Your task to perform on an android device: What's on the menu at Pizza Hut? Image 0: 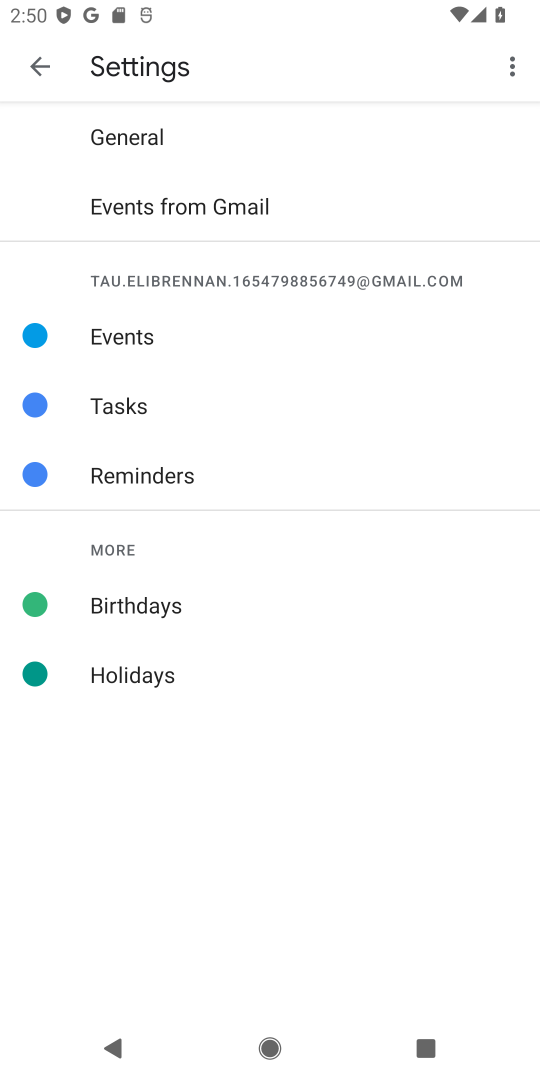
Step 0: press home button
Your task to perform on an android device: What's on the menu at Pizza Hut? Image 1: 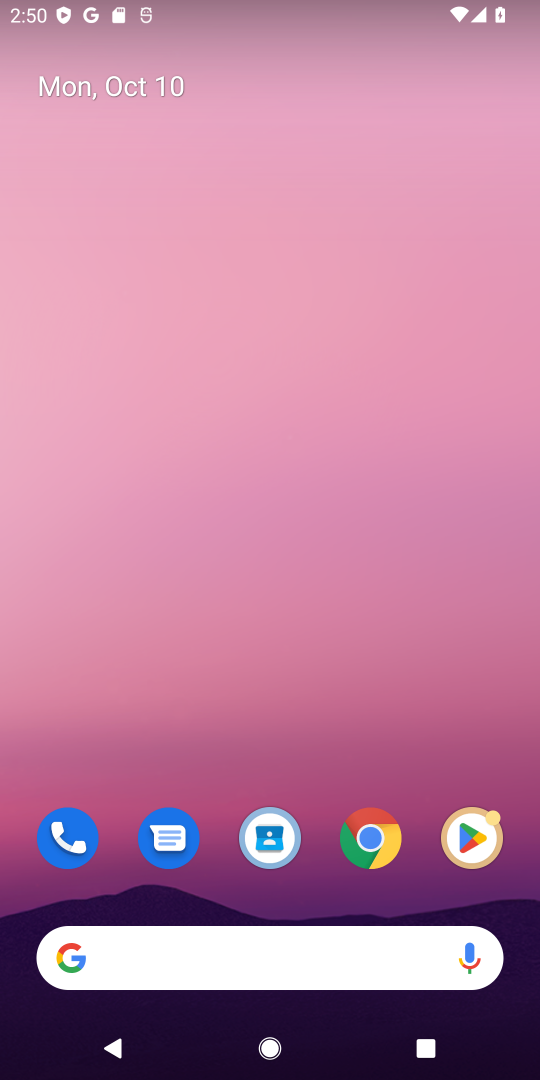
Step 1: click (279, 962)
Your task to perform on an android device: What's on the menu at Pizza Hut? Image 2: 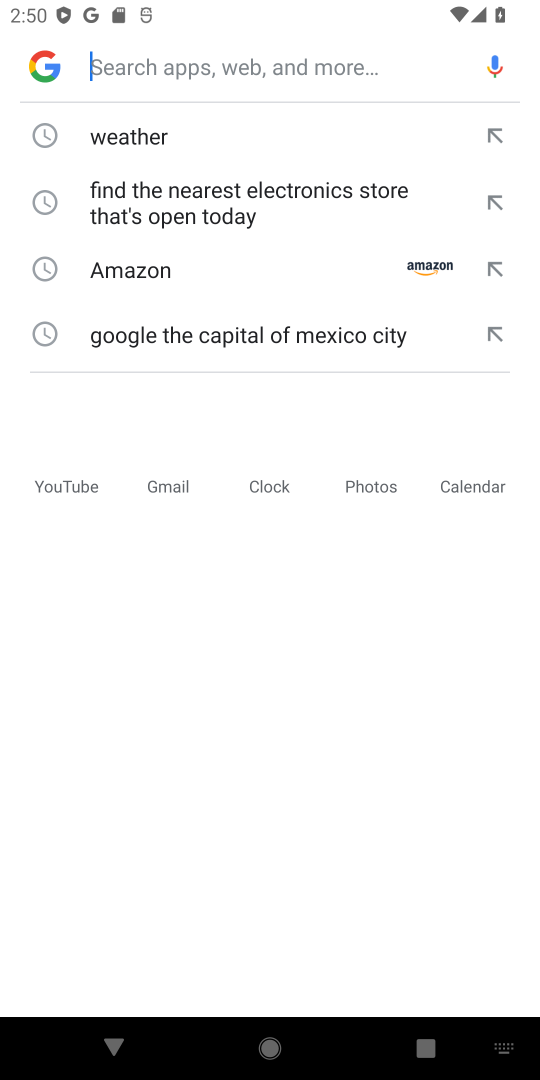
Step 2: type "menu at Pizza Hut"
Your task to perform on an android device: What's on the menu at Pizza Hut? Image 3: 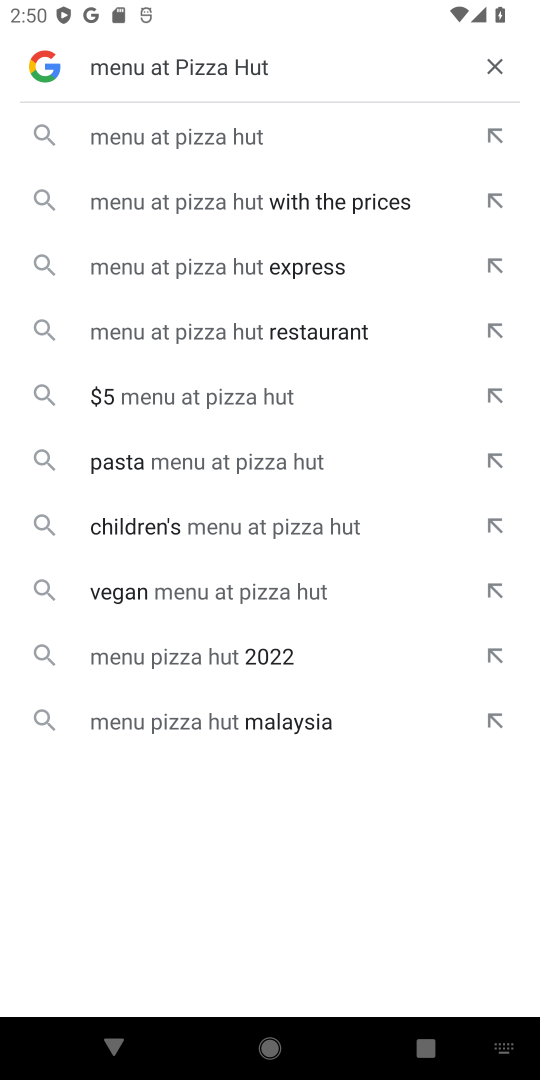
Step 3: click (260, 133)
Your task to perform on an android device: What's on the menu at Pizza Hut? Image 4: 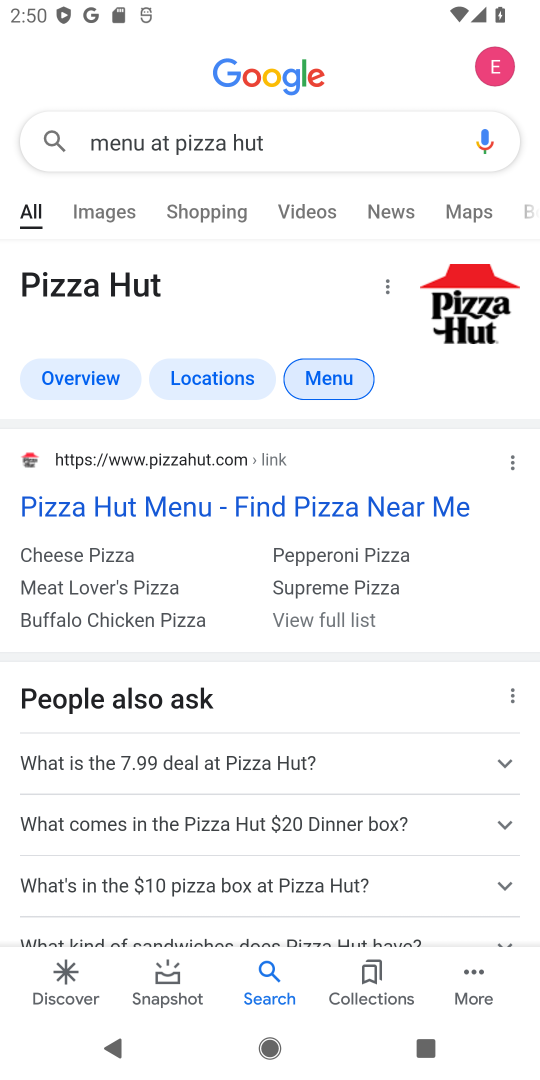
Step 4: click (406, 499)
Your task to perform on an android device: What's on the menu at Pizza Hut? Image 5: 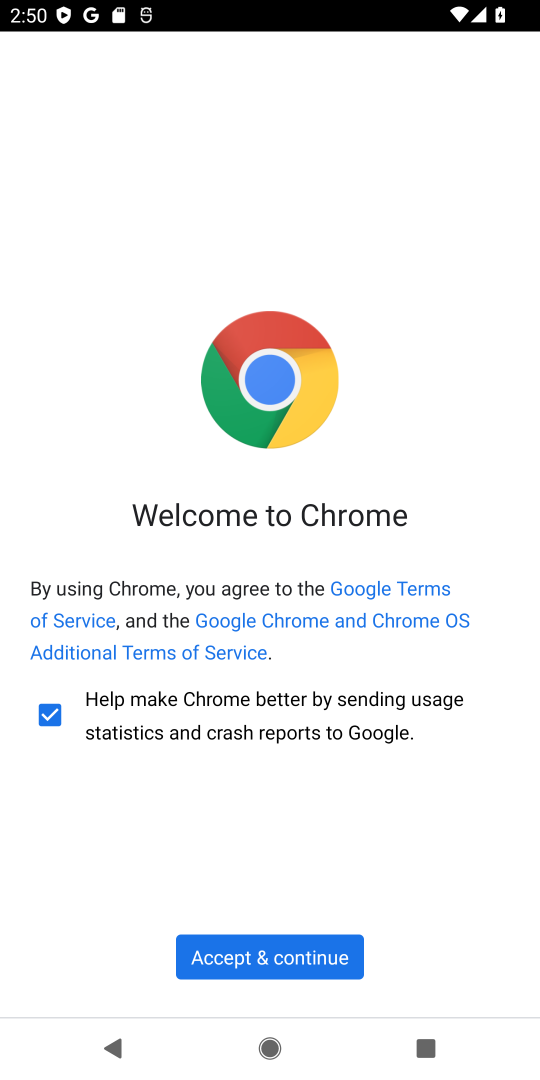
Step 5: click (251, 942)
Your task to perform on an android device: What's on the menu at Pizza Hut? Image 6: 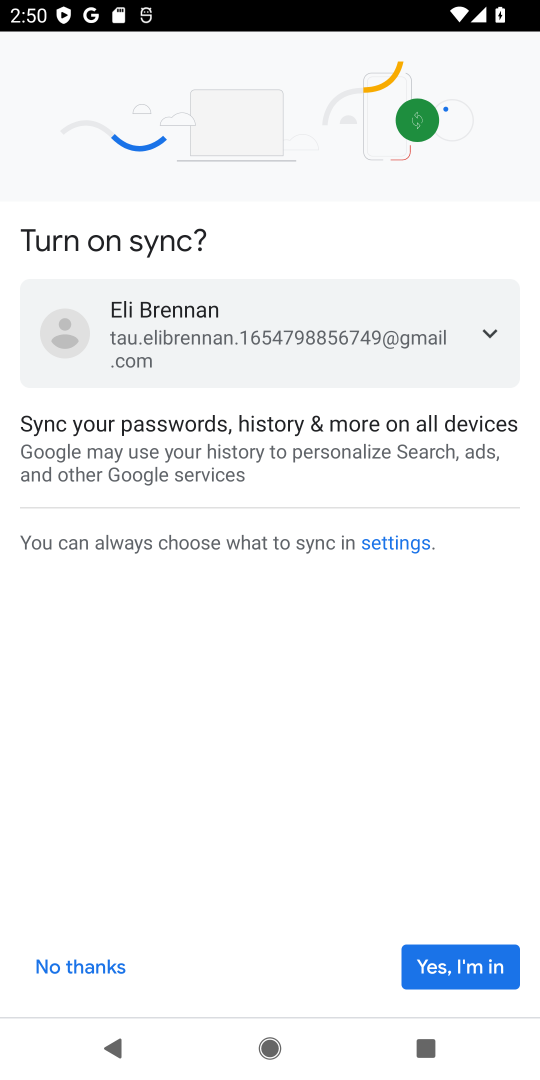
Step 6: click (476, 973)
Your task to perform on an android device: What's on the menu at Pizza Hut? Image 7: 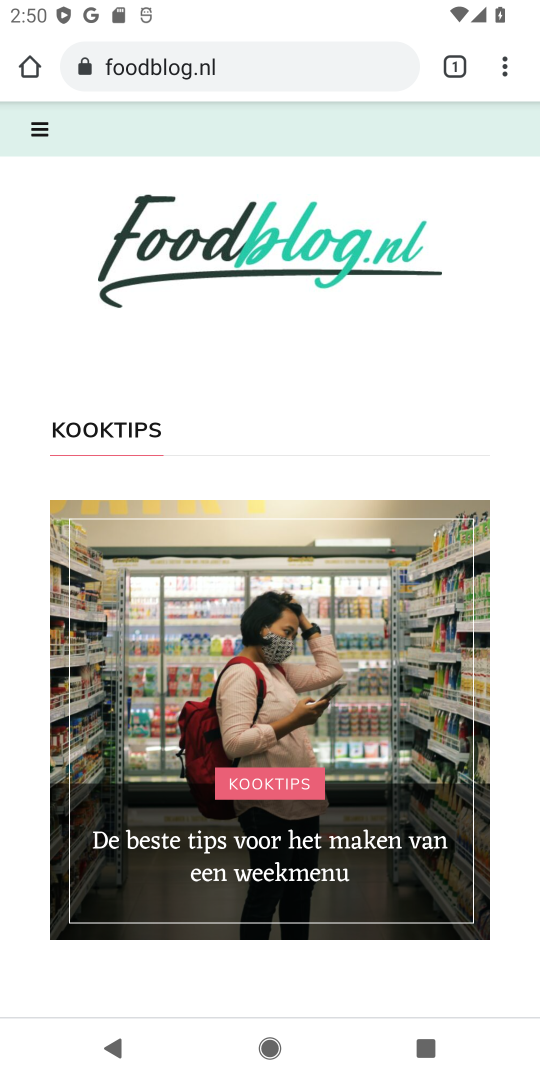
Step 7: drag from (419, 949) to (419, 390)
Your task to perform on an android device: What's on the menu at Pizza Hut? Image 8: 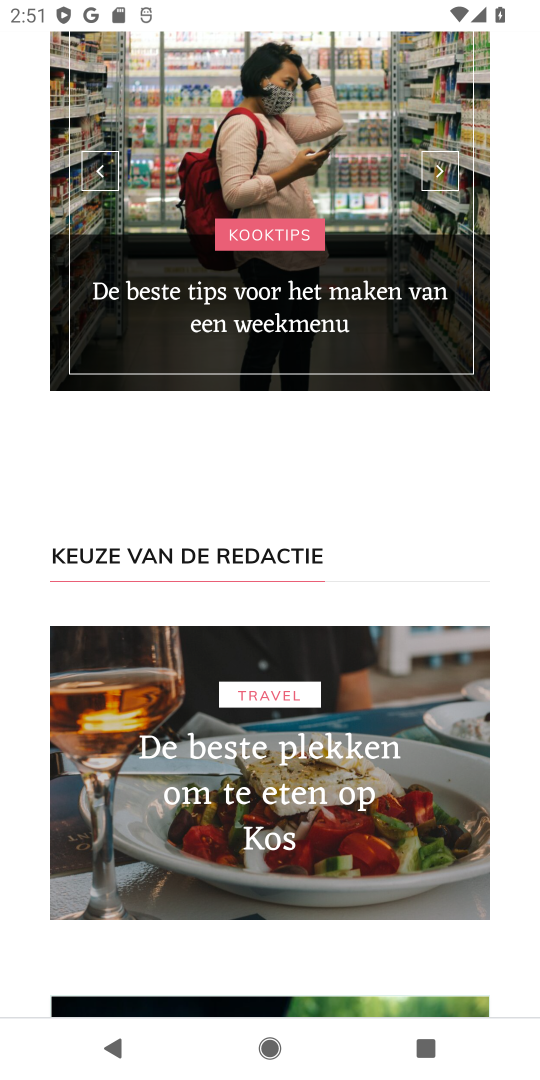
Step 8: drag from (375, 662) to (355, 349)
Your task to perform on an android device: What's on the menu at Pizza Hut? Image 9: 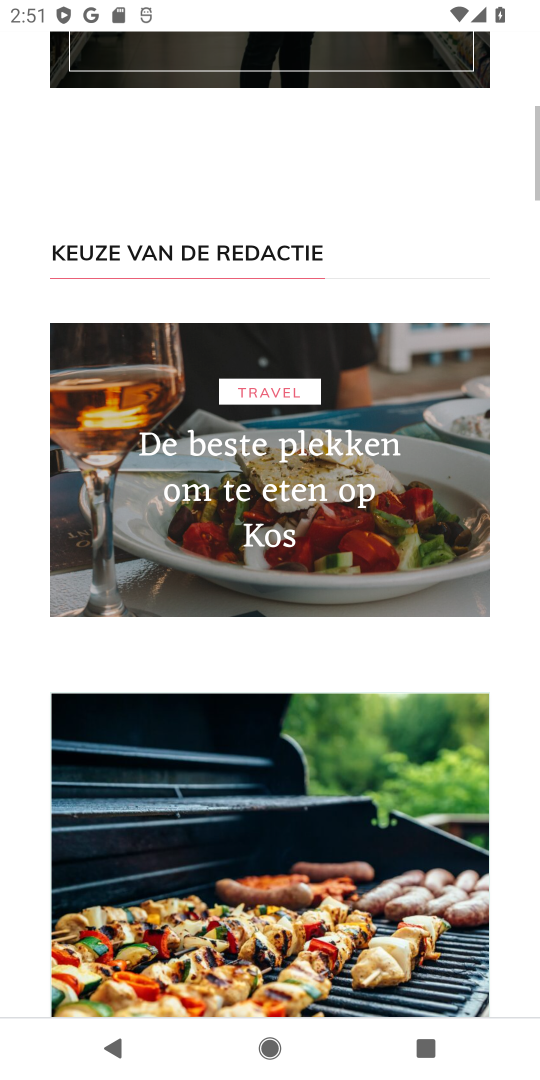
Step 9: drag from (333, 839) to (341, 357)
Your task to perform on an android device: What's on the menu at Pizza Hut? Image 10: 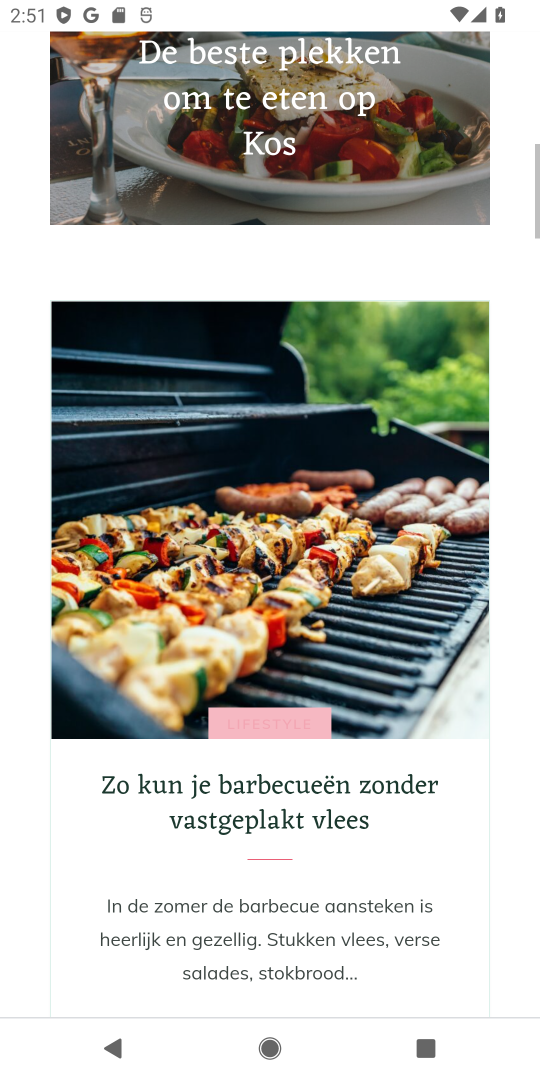
Step 10: drag from (358, 682) to (372, 156)
Your task to perform on an android device: What's on the menu at Pizza Hut? Image 11: 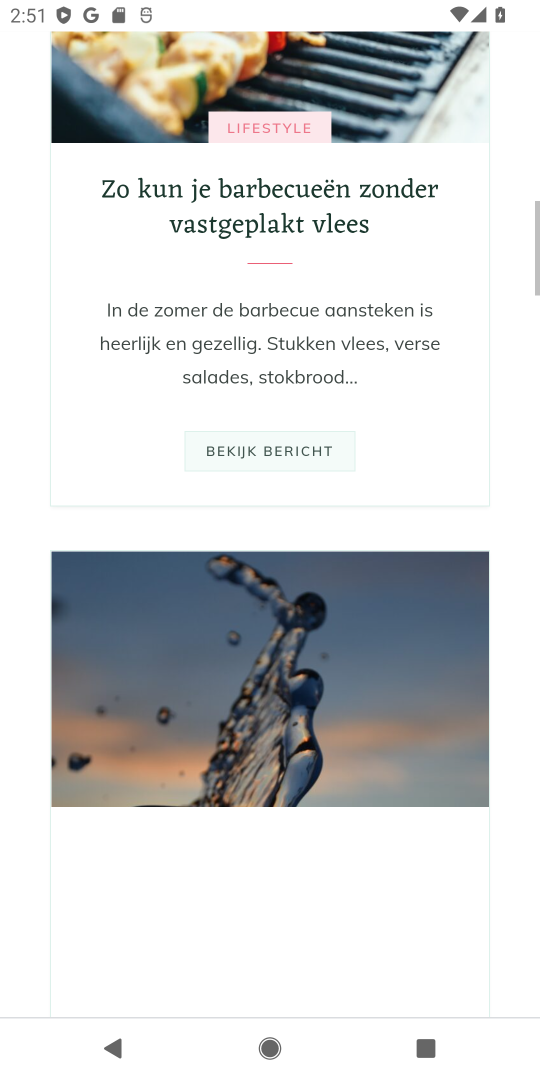
Step 11: drag from (338, 615) to (312, 199)
Your task to perform on an android device: What's on the menu at Pizza Hut? Image 12: 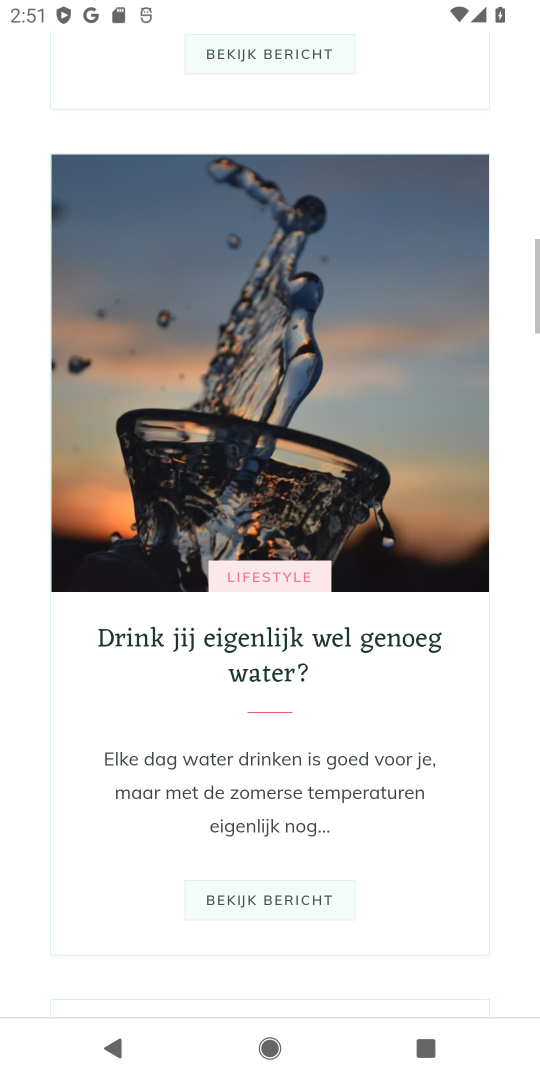
Step 12: drag from (286, 690) to (299, 217)
Your task to perform on an android device: What's on the menu at Pizza Hut? Image 13: 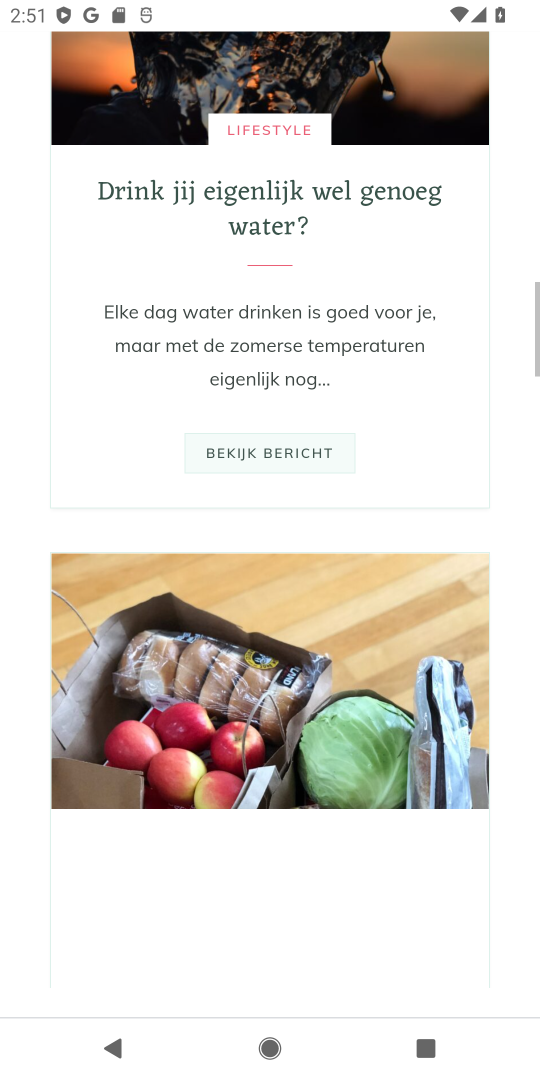
Step 13: drag from (292, 736) to (340, 390)
Your task to perform on an android device: What's on the menu at Pizza Hut? Image 14: 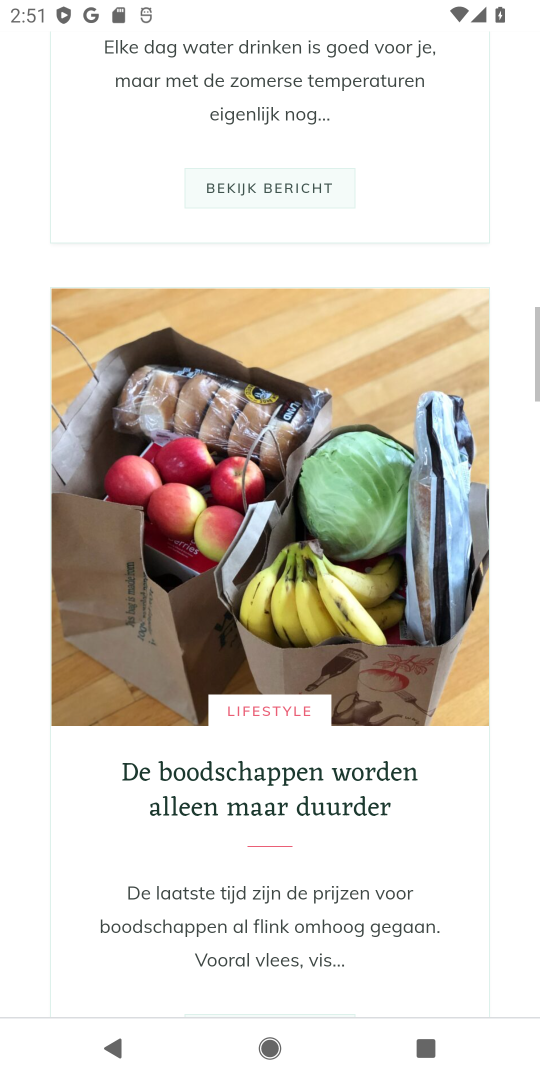
Step 14: drag from (354, 644) to (354, 365)
Your task to perform on an android device: What's on the menu at Pizza Hut? Image 15: 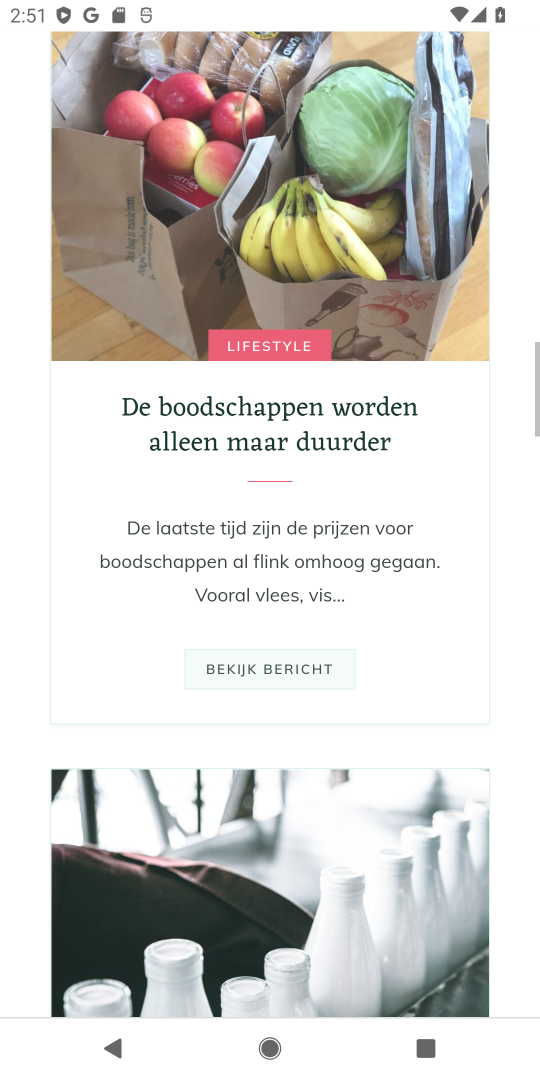
Step 15: drag from (347, 821) to (381, 427)
Your task to perform on an android device: What's on the menu at Pizza Hut? Image 16: 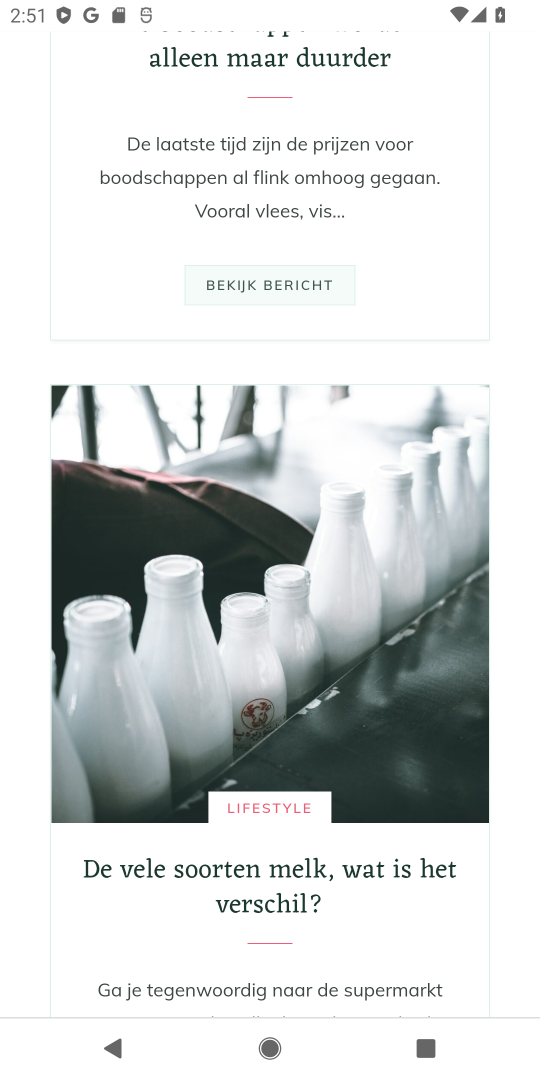
Step 16: drag from (331, 709) to (317, 140)
Your task to perform on an android device: What's on the menu at Pizza Hut? Image 17: 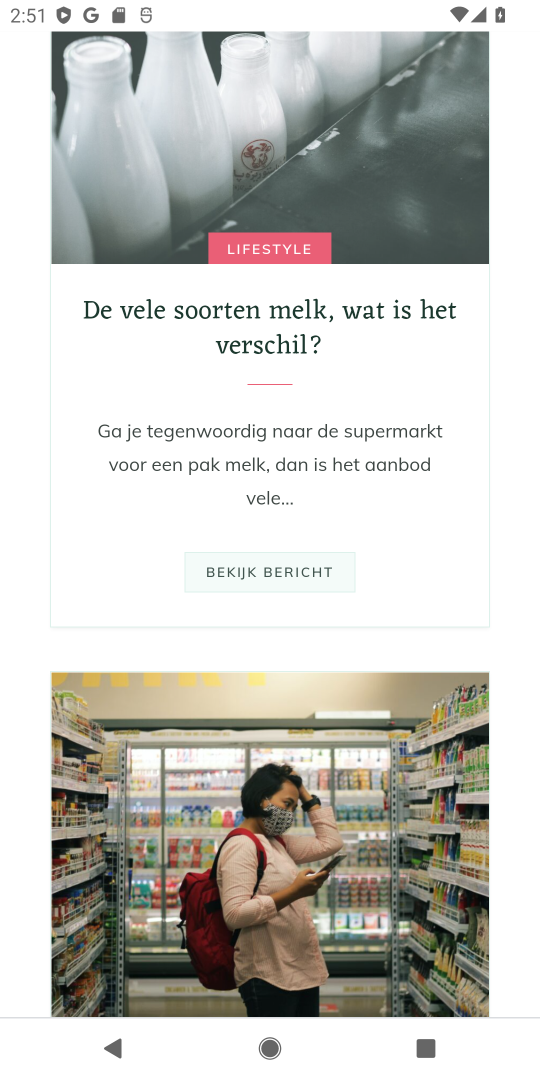
Step 17: click (293, 249)
Your task to perform on an android device: What's on the menu at Pizza Hut? Image 18: 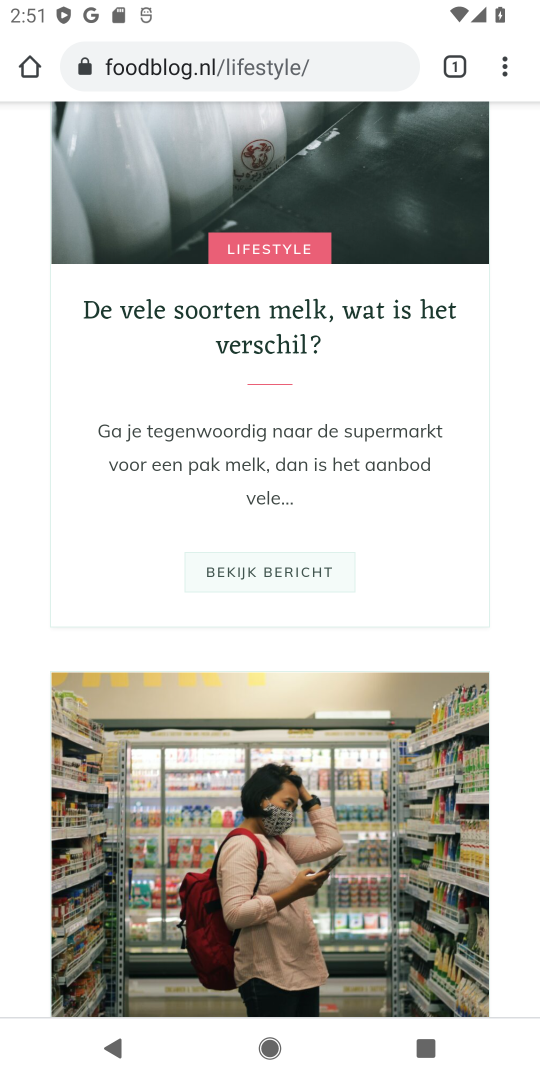
Step 18: task complete